Your task to perform on an android device: Show me productivity apps on the Play Store Image 0: 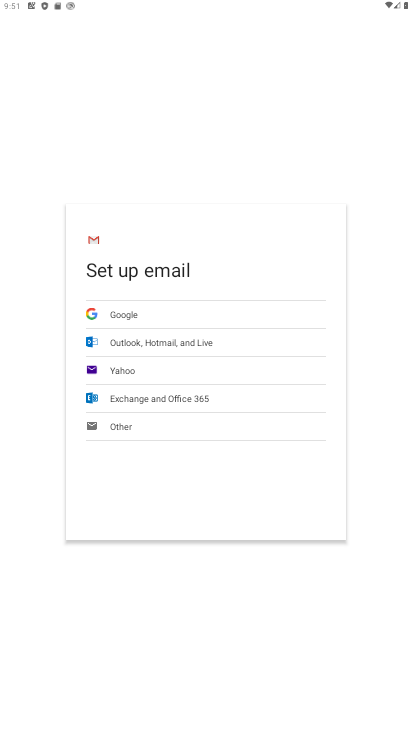
Step 0: press home button
Your task to perform on an android device: Show me productivity apps on the Play Store Image 1: 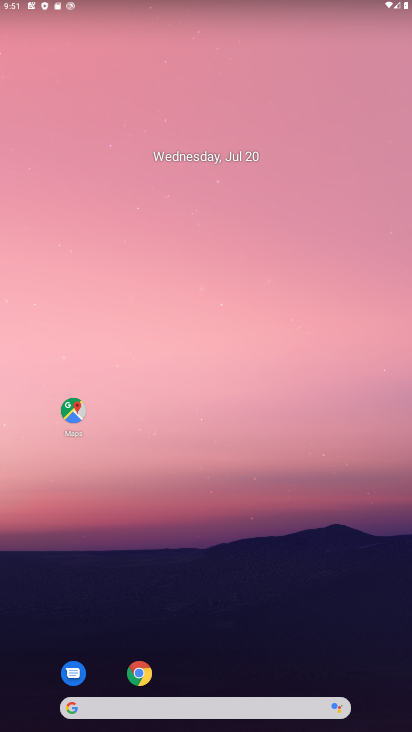
Step 1: drag from (235, 713) to (234, 62)
Your task to perform on an android device: Show me productivity apps on the Play Store Image 2: 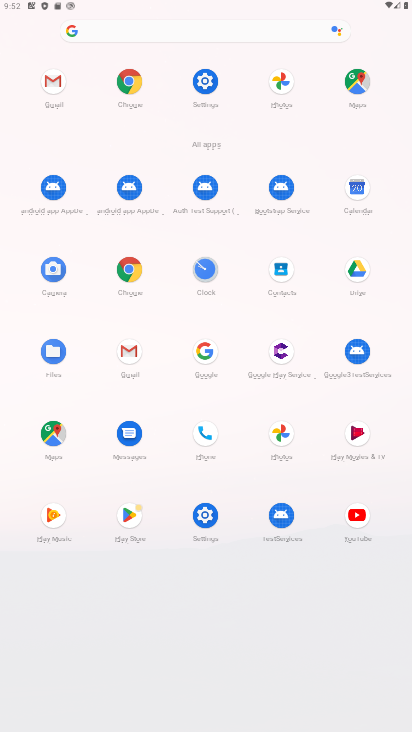
Step 2: click (128, 513)
Your task to perform on an android device: Show me productivity apps on the Play Store Image 3: 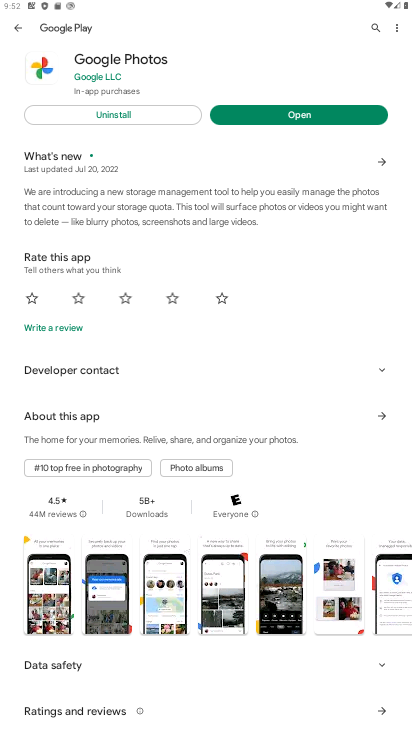
Step 3: press back button
Your task to perform on an android device: Show me productivity apps on the Play Store Image 4: 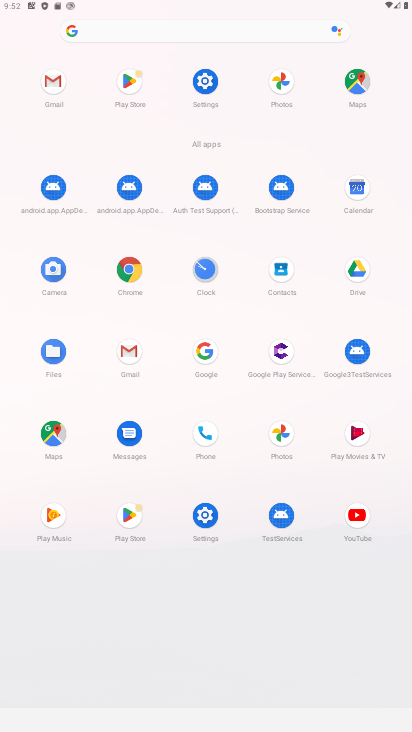
Step 4: click (132, 514)
Your task to perform on an android device: Show me productivity apps on the Play Store Image 5: 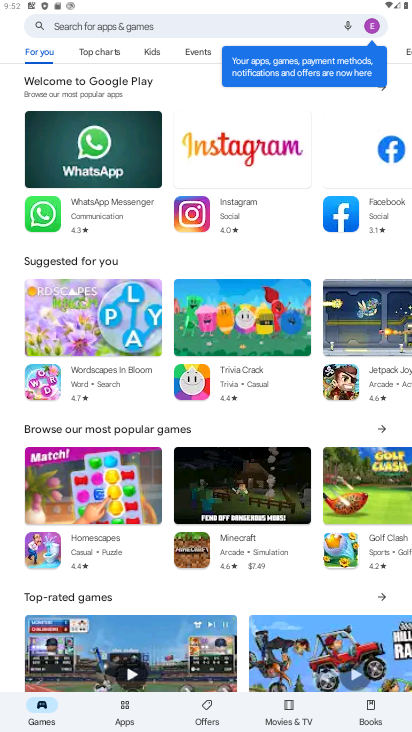
Step 5: click (123, 704)
Your task to perform on an android device: Show me productivity apps on the Play Store Image 6: 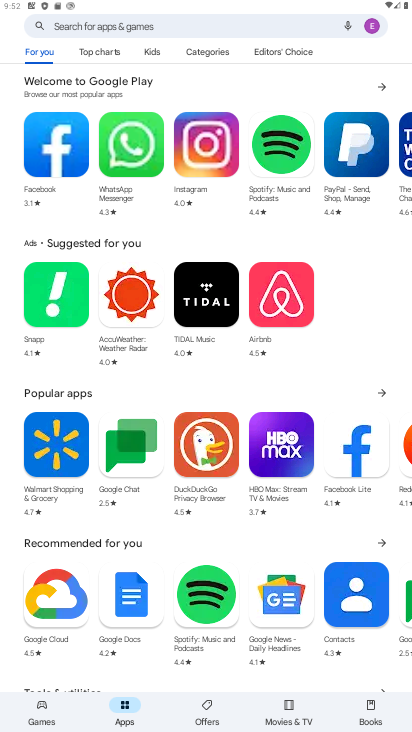
Step 6: click (202, 53)
Your task to perform on an android device: Show me productivity apps on the Play Store Image 7: 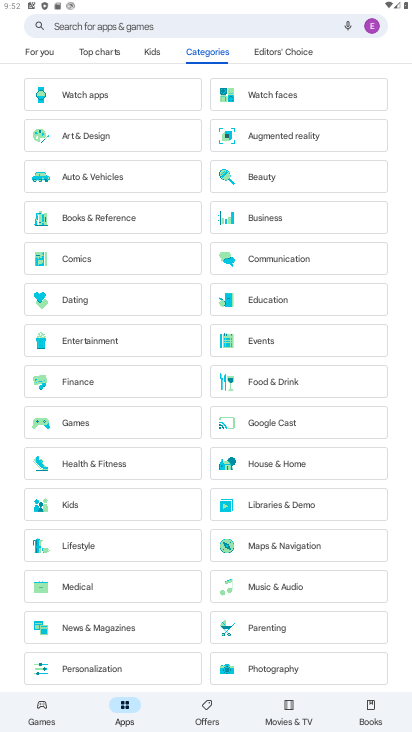
Step 7: drag from (117, 609) to (105, 409)
Your task to perform on an android device: Show me productivity apps on the Play Store Image 8: 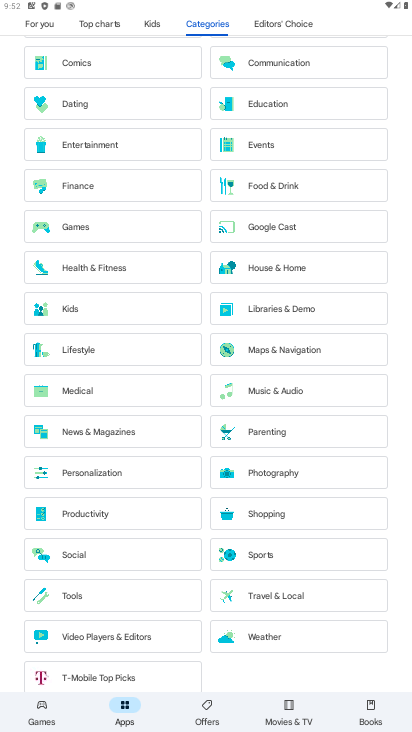
Step 8: click (89, 512)
Your task to perform on an android device: Show me productivity apps on the Play Store Image 9: 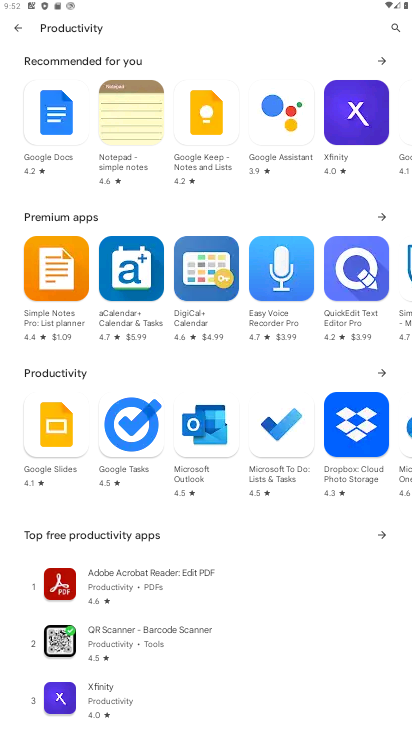
Step 9: task complete